Your task to perform on an android device: allow notifications from all sites in the chrome app Image 0: 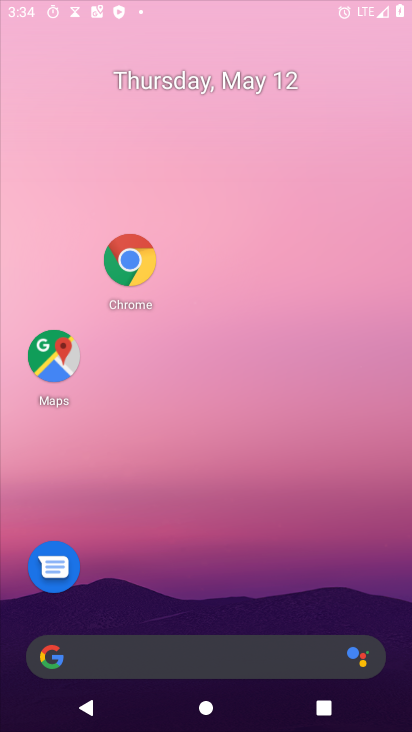
Step 0: click (207, 195)
Your task to perform on an android device: allow notifications from all sites in the chrome app Image 1: 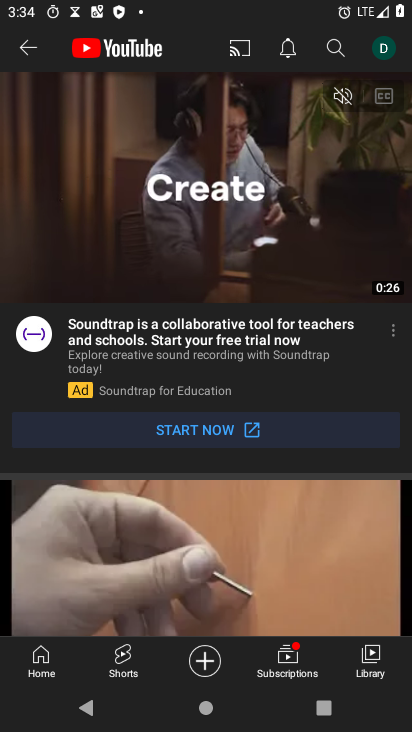
Step 1: press back button
Your task to perform on an android device: allow notifications from all sites in the chrome app Image 2: 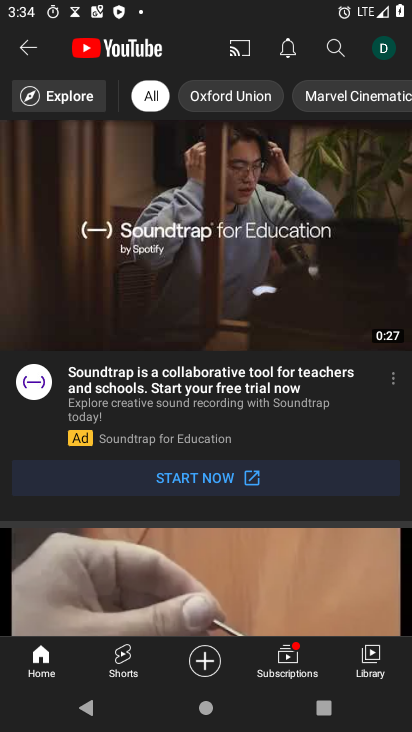
Step 2: press home button
Your task to perform on an android device: allow notifications from all sites in the chrome app Image 3: 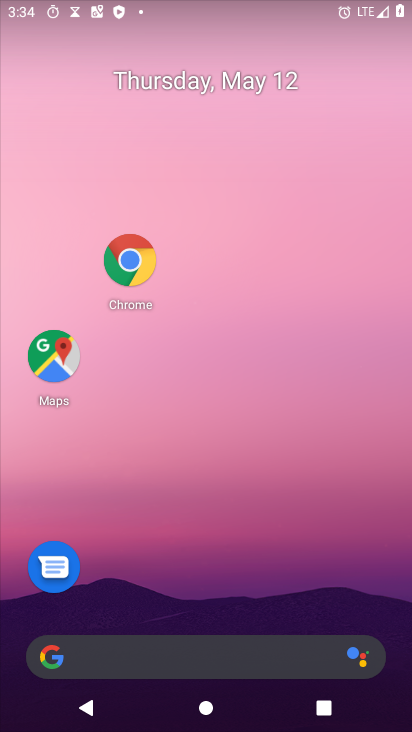
Step 3: drag from (211, 642) to (216, 320)
Your task to perform on an android device: allow notifications from all sites in the chrome app Image 4: 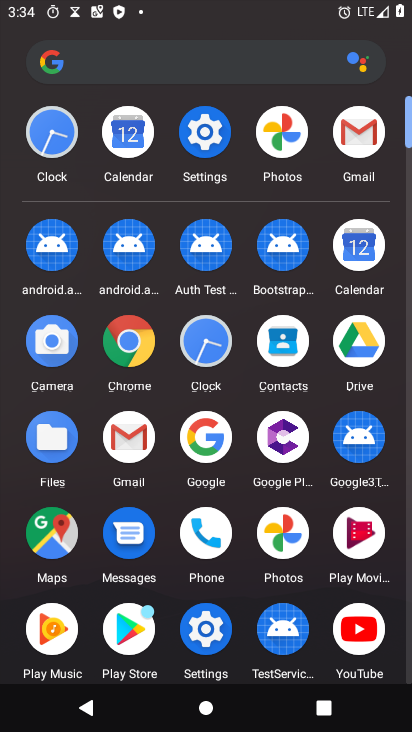
Step 4: click (124, 338)
Your task to perform on an android device: allow notifications from all sites in the chrome app Image 5: 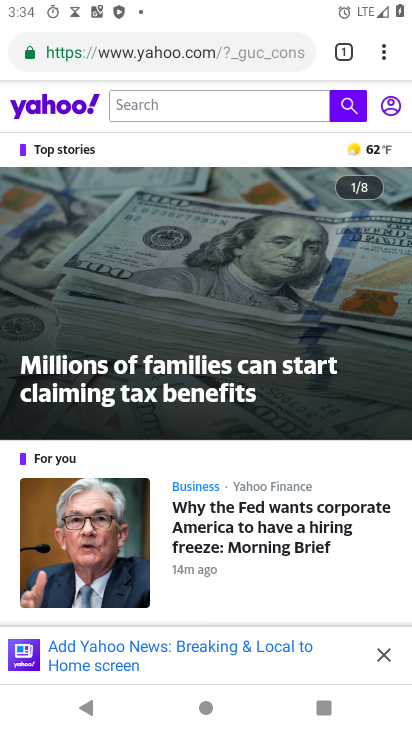
Step 5: click (386, 52)
Your task to perform on an android device: allow notifications from all sites in the chrome app Image 6: 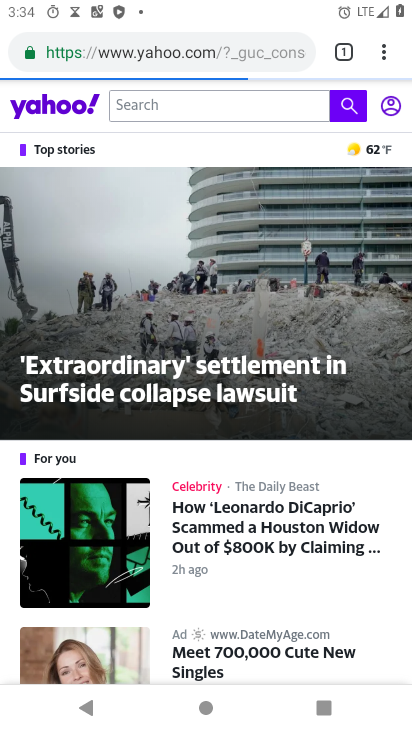
Step 6: click (383, 50)
Your task to perform on an android device: allow notifications from all sites in the chrome app Image 7: 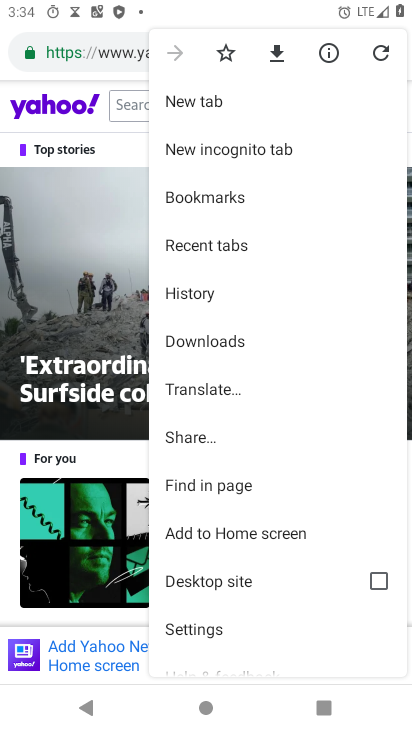
Step 7: click (201, 634)
Your task to perform on an android device: allow notifications from all sites in the chrome app Image 8: 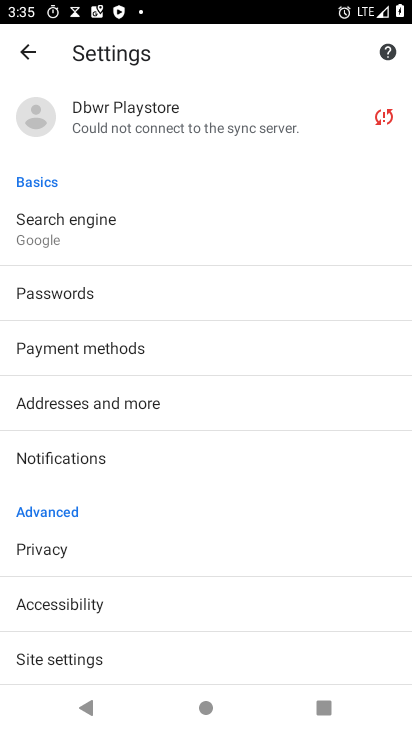
Step 8: drag from (158, 656) to (146, 312)
Your task to perform on an android device: allow notifications from all sites in the chrome app Image 9: 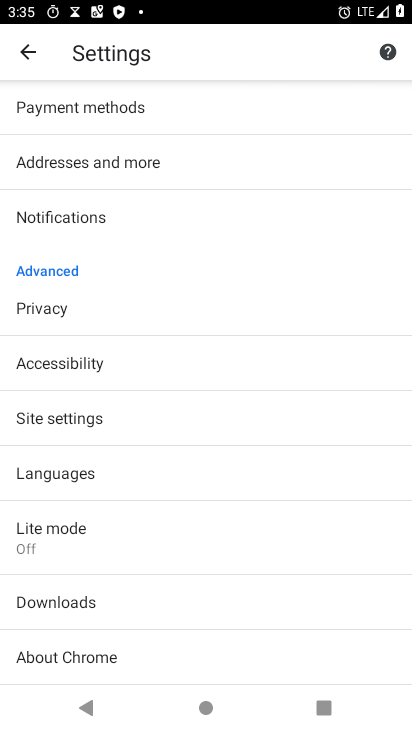
Step 9: click (83, 420)
Your task to perform on an android device: allow notifications from all sites in the chrome app Image 10: 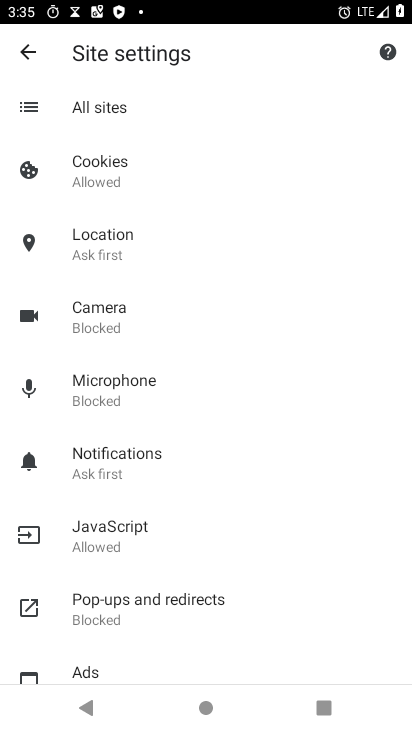
Step 10: click (112, 459)
Your task to perform on an android device: allow notifications from all sites in the chrome app Image 11: 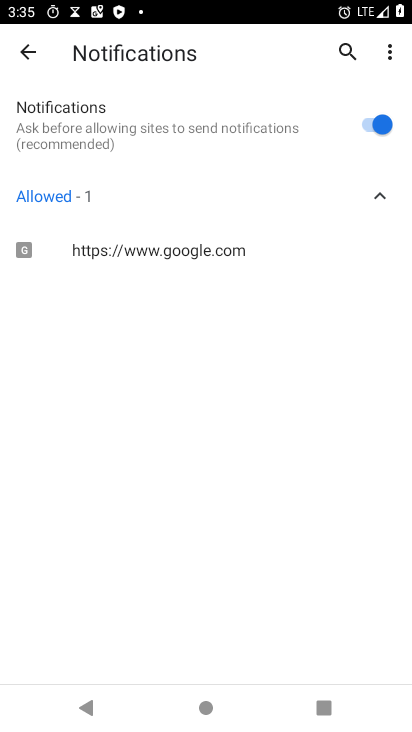
Step 11: task complete